Your task to perform on an android device: find photos in the google photos app Image 0: 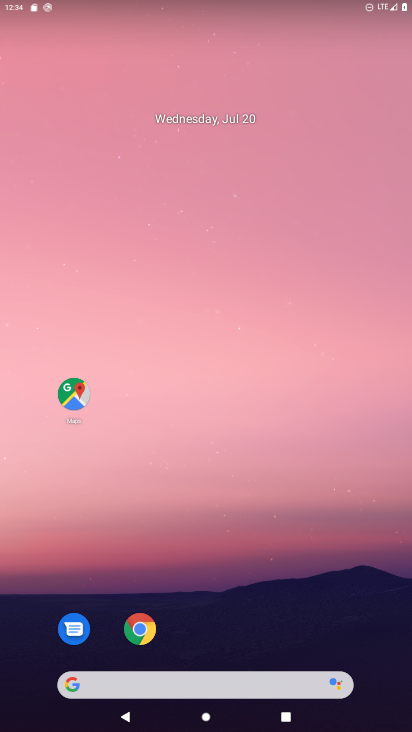
Step 0: drag from (236, 460) to (290, 130)
Your task to perform on an android device: find photos in the google photos app Image 1: 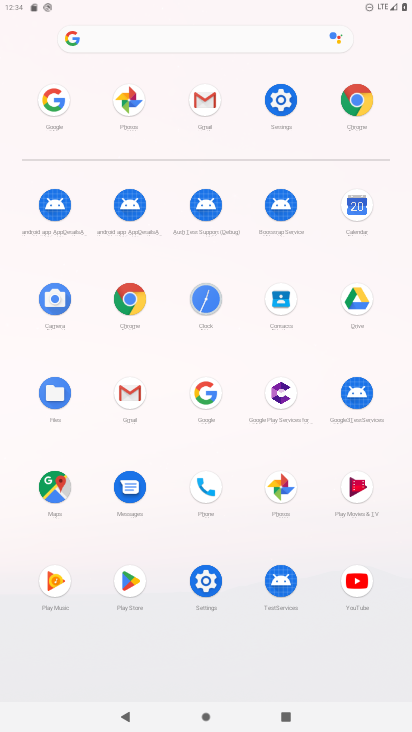
Step 1: click (289, 503)
Your task to perform on an android device: find photos in the google photos app Image 2: 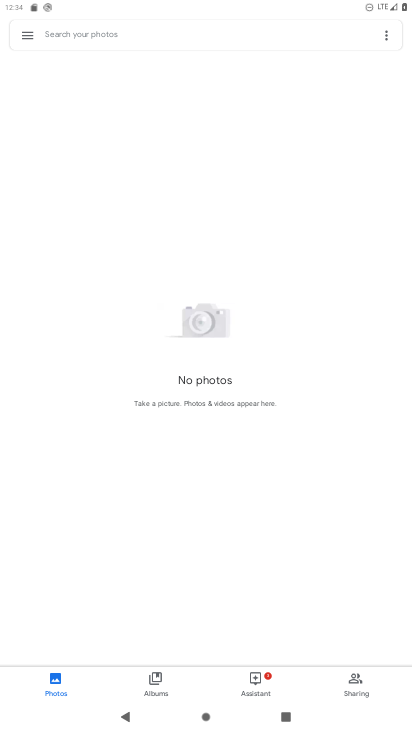
Step 2: task complete